Your task to perform on an android device: Go to Yahoo.com Image 0: 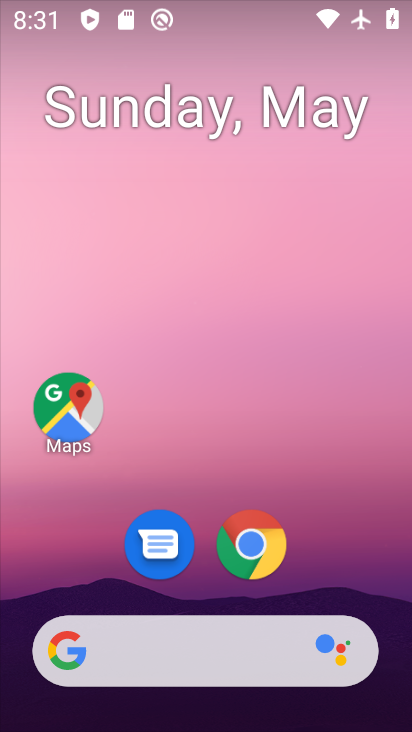
Step 0: drag from (350, 576) to (312, 37)
Your task to perform on an android device: Go to Yahoo.com Image 1: 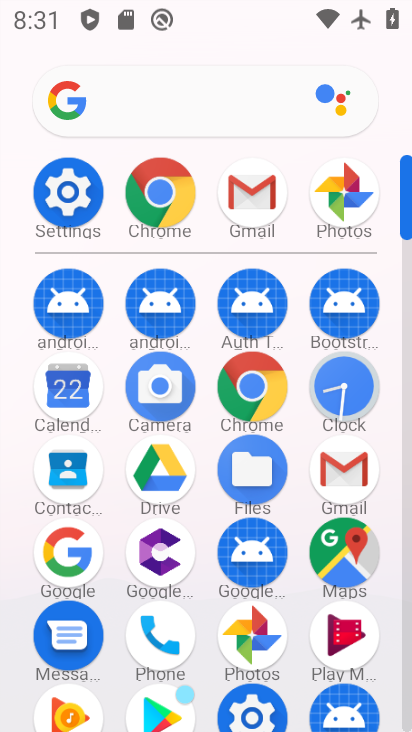
Step 1: click (245, 385)
Your task to perform on an android device: Go to Yahoo.com Image 2: 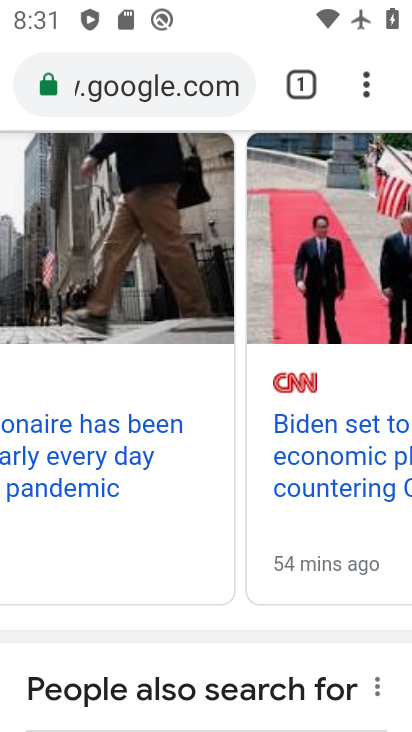
Step 2: click (170, 81)
Your task to perform on an android device: Go to Yahoo.com Image 3: 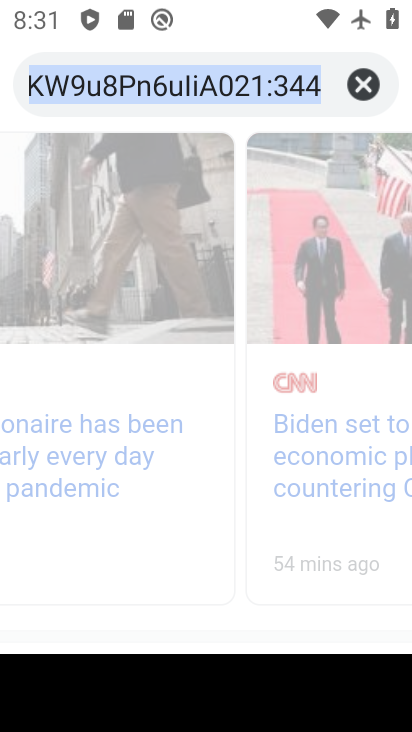
Step 3: click (356, 79)
Your task to perform on an android device: Go to Yahoo.com Image 4: 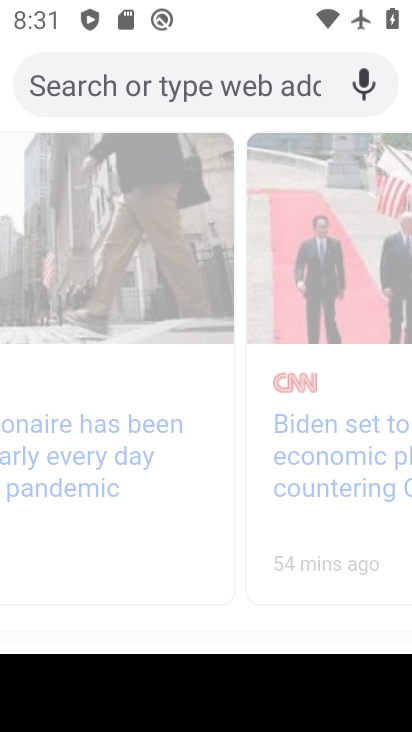
Step 4: type " Yahoo.com"
Your task to perform on an android device: Go to Yahoo.com Image 5: 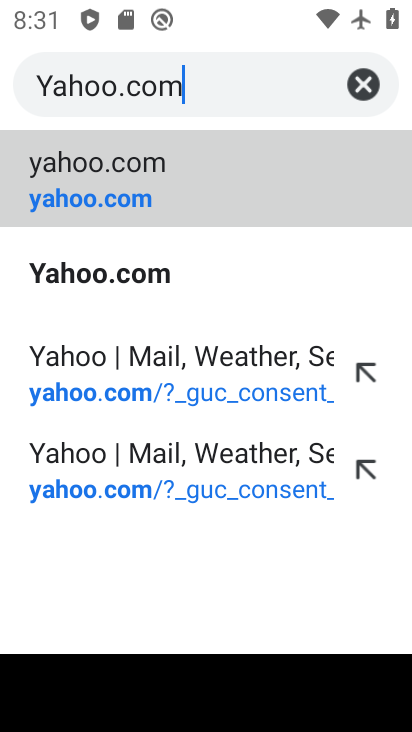
Step 5: type ""
Your task to perform on an android device: Go to Yahoo.com Image 6: 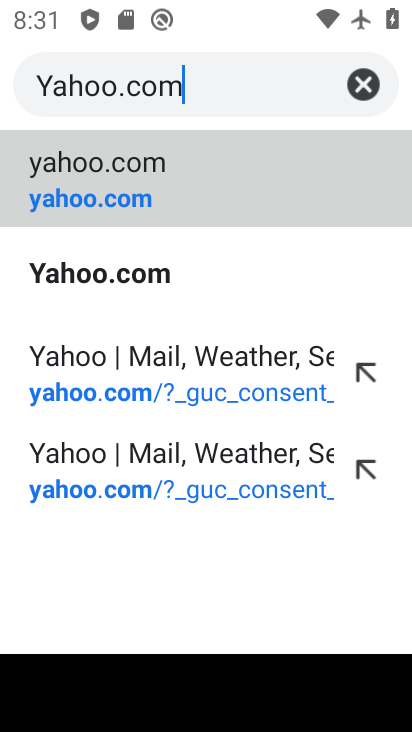
Step 6: click (196, 155)
Your task to perform on an android device: Go to Yahoo.com Image 7: 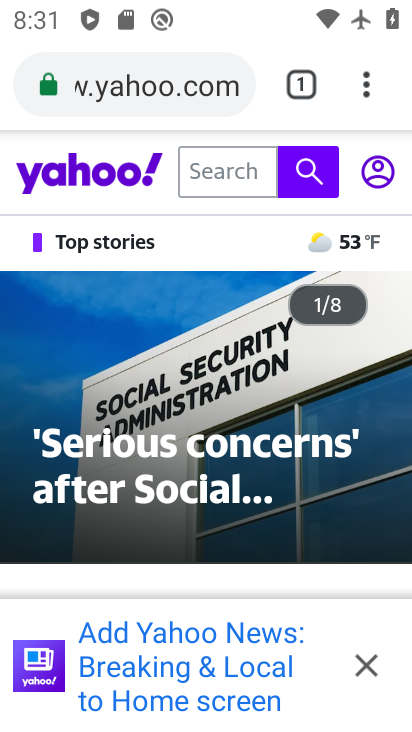
Step 7: drag from (112, 482) to (128, 200)
Your task to perform on an android device: Go to Yahoo.com Image 8: 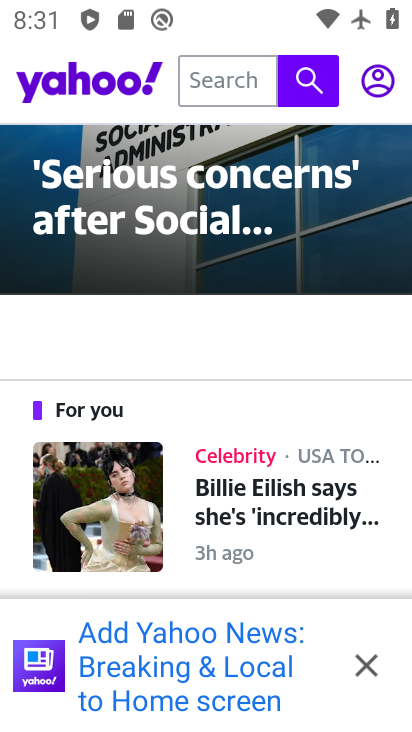
Step 8: drag from (200, 578) to (220, 217)
Your task to perform on an android device: Go to Yahoo.com Image 9: 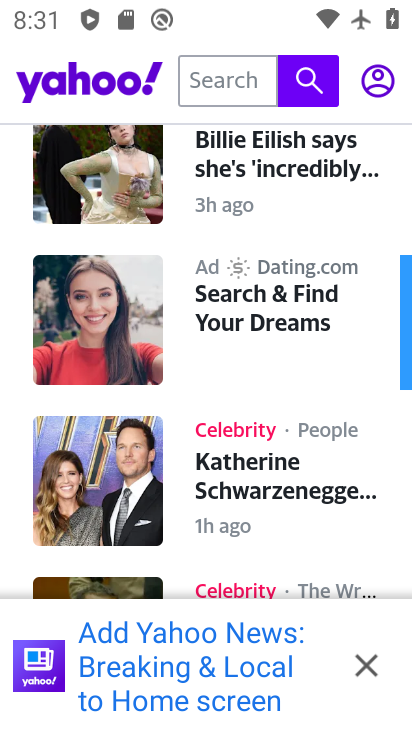
Step 9: click (360, 665)
Your task to perform on an android device: Go to Yahoo.com Image 10: 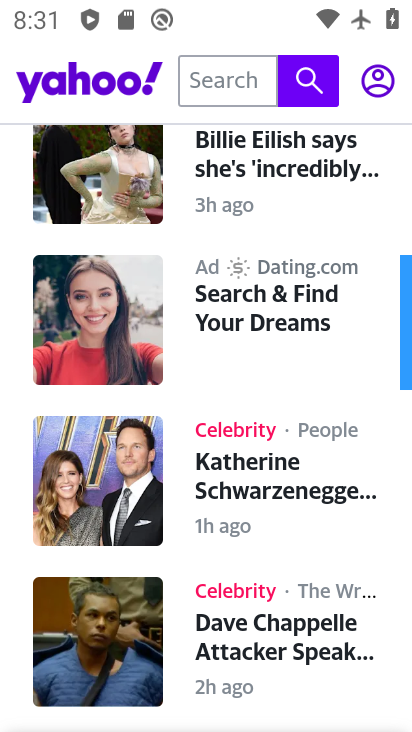
Step 10: task complete